Your task to perform on an android device: View the shopping cart on costco.com. Image 0: 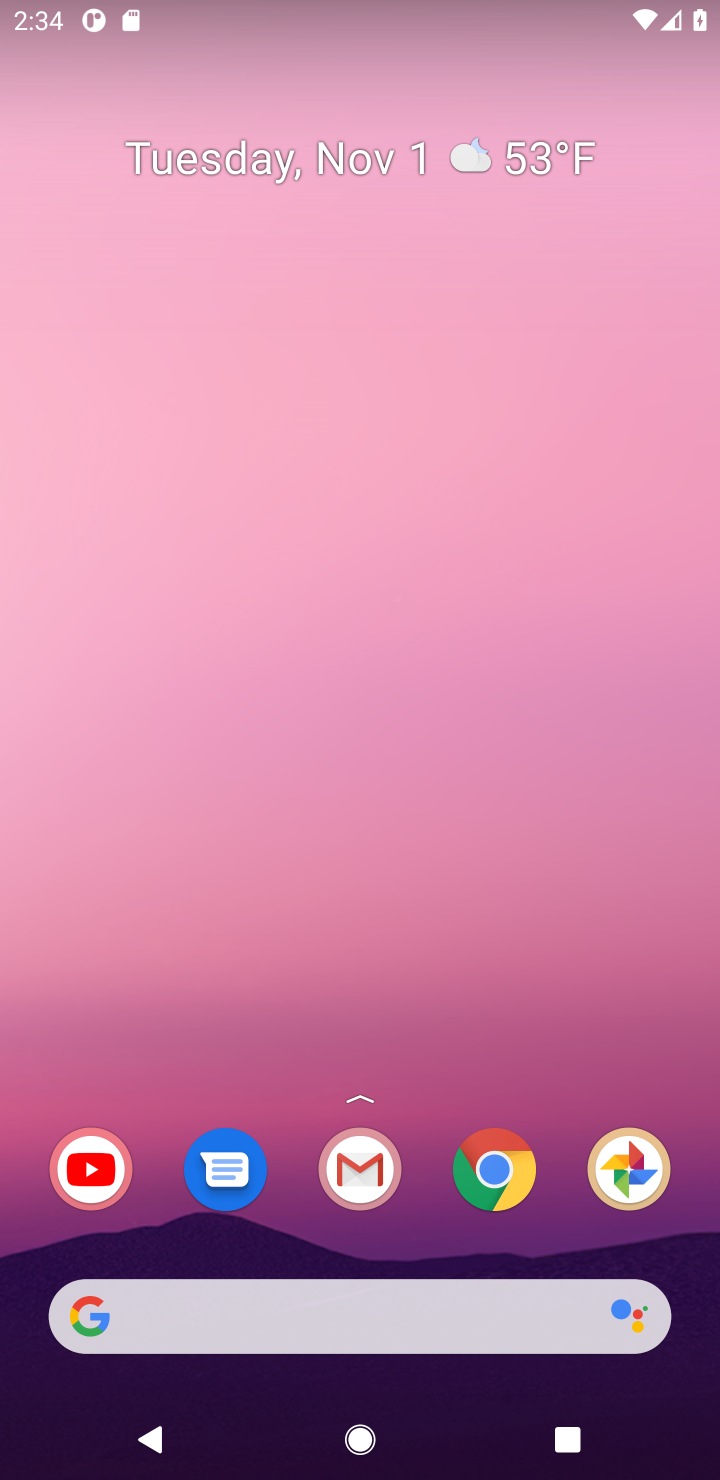
Step 0: drag from (420, 1117) to (405, 236)
Your task to perform on an android device: View the shopping cart on costco.com. Image 1: 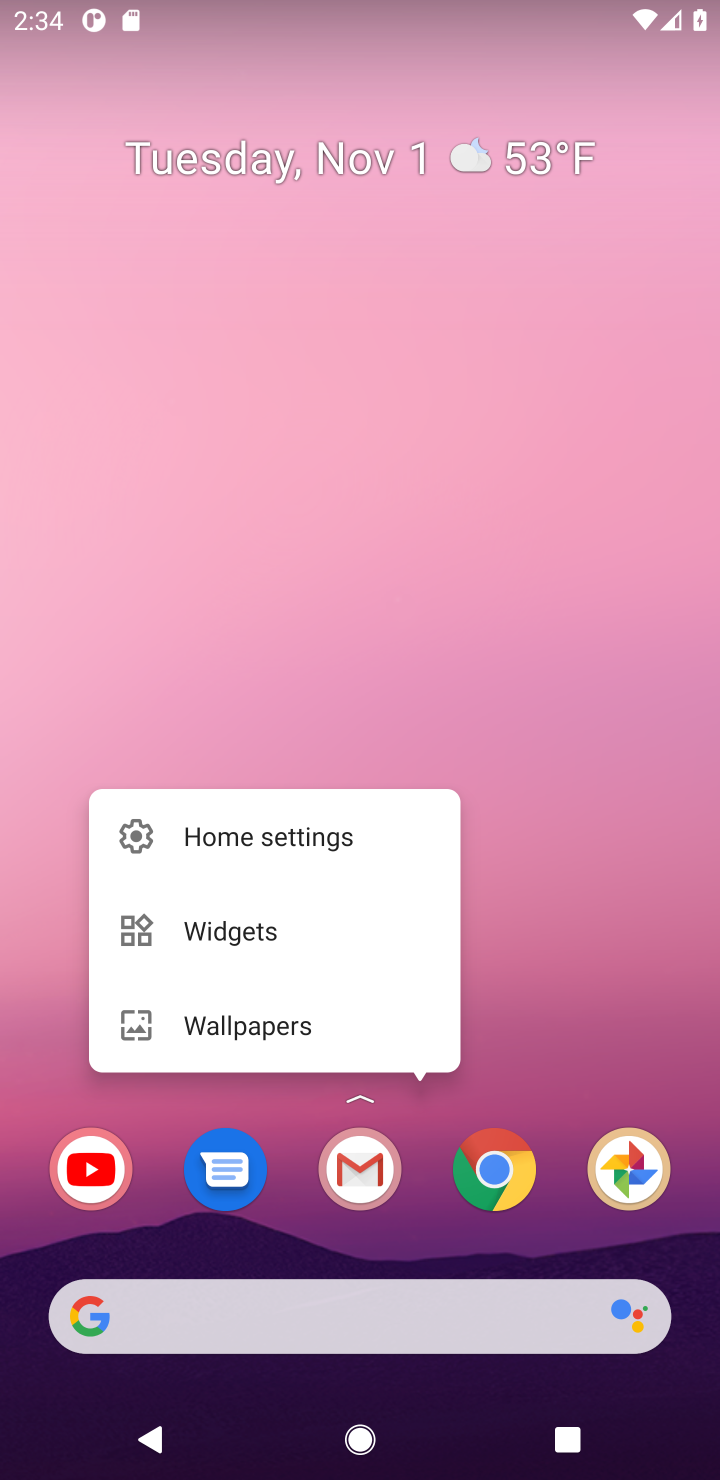
Step 1: click (540, 973)
Your task to perform on an android device: View the shopping cart on costco.com. Image 2: 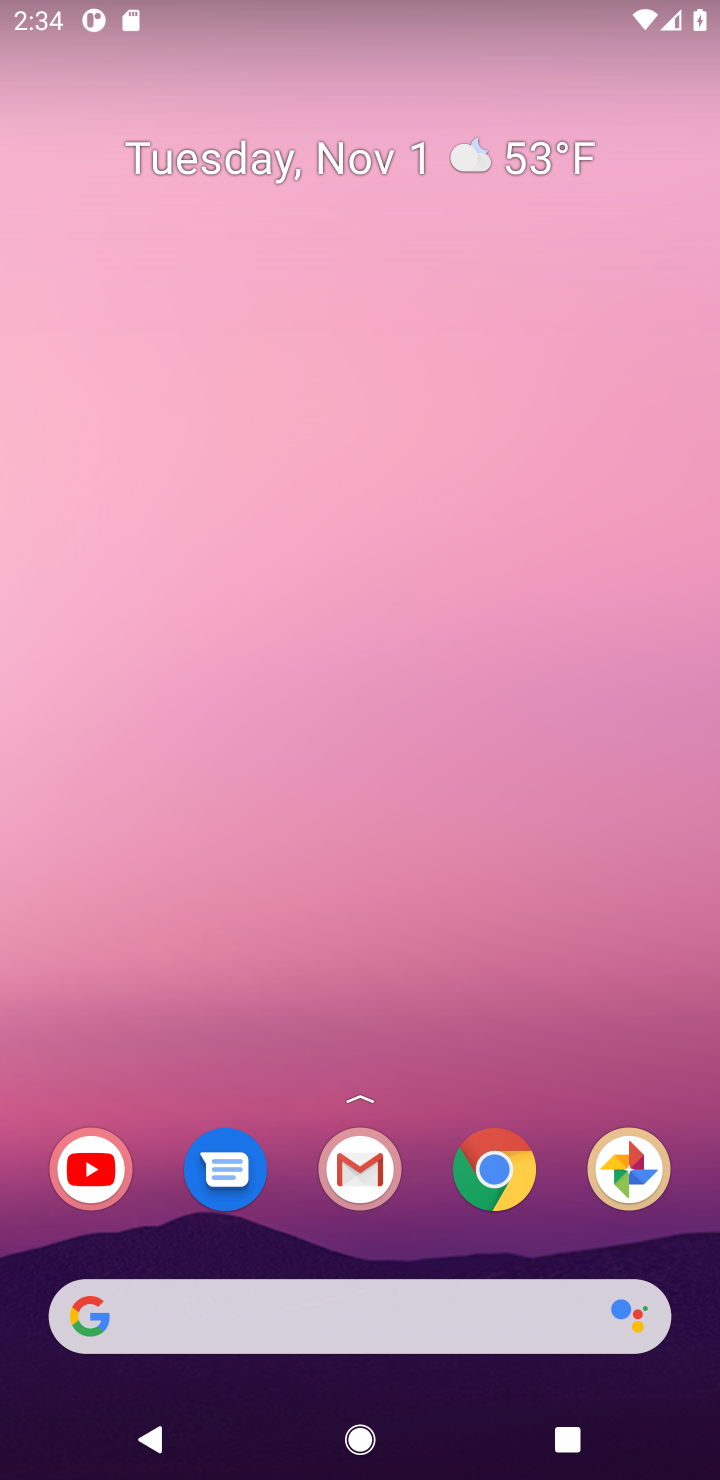
Step 2: drag from (554, 1115) to (470, 81)
Your task to perform on an android device: View the shopping cart on costco.com. Image 3: 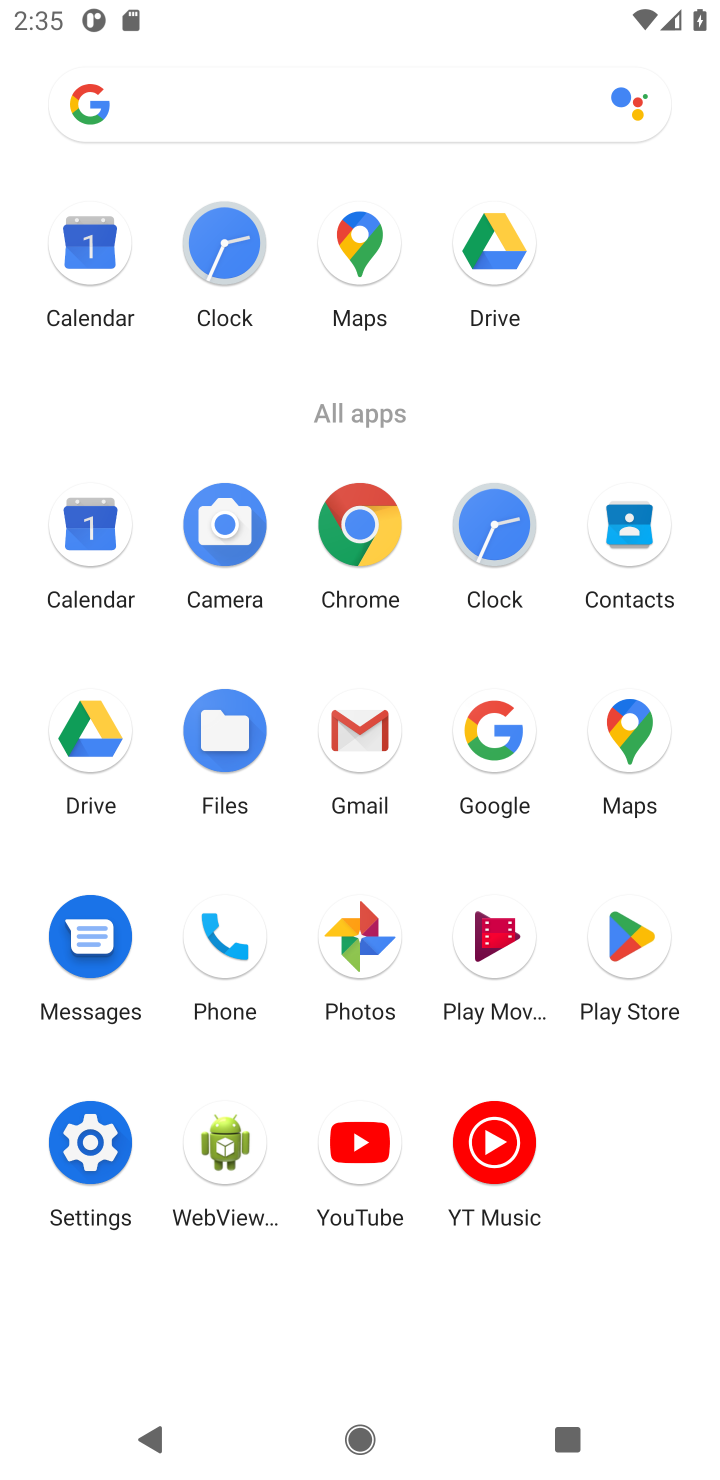
Step 3: click (355, 515)
Your task to perform on an android device: View the shopping cart on costco.com. Image 4: 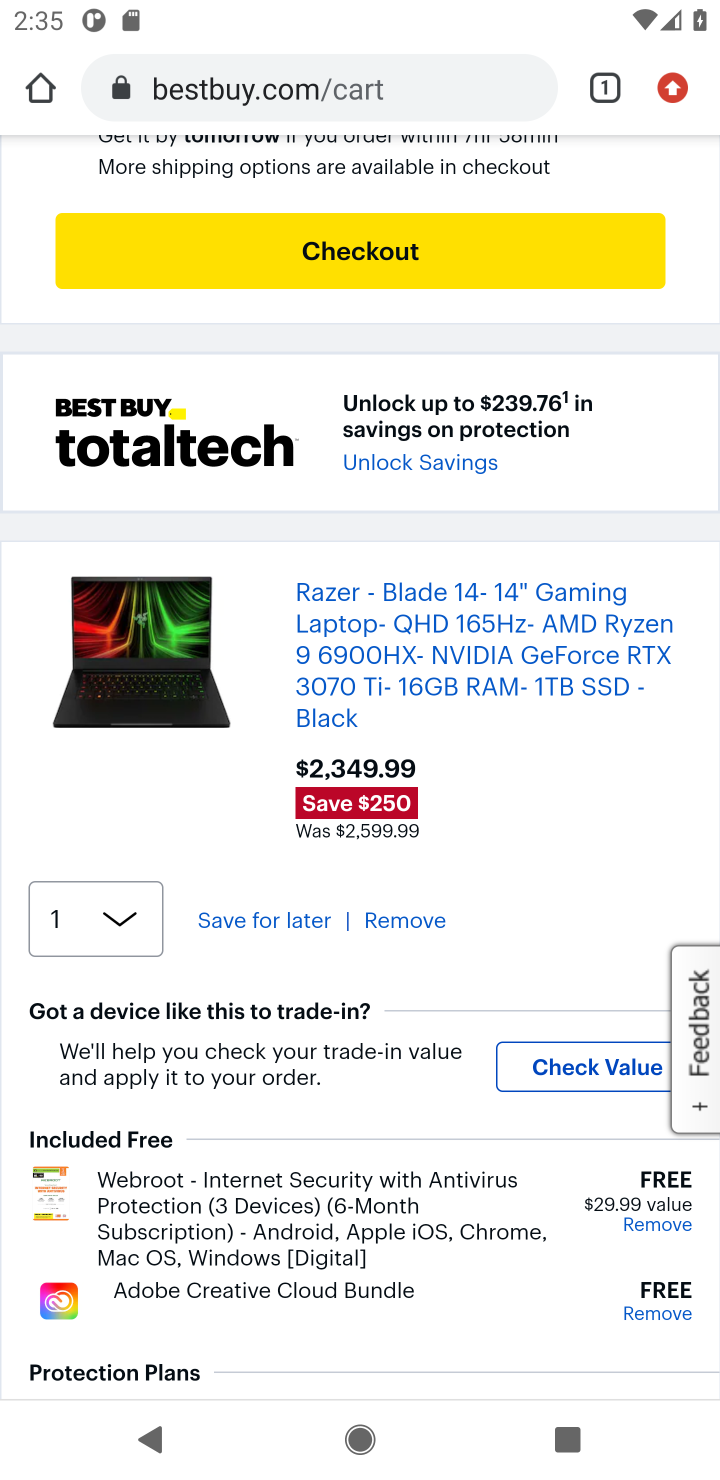
Step 4: click (354, 511)
Your task to perform on an android device: View the shopping cart on costco.com. Image 5: 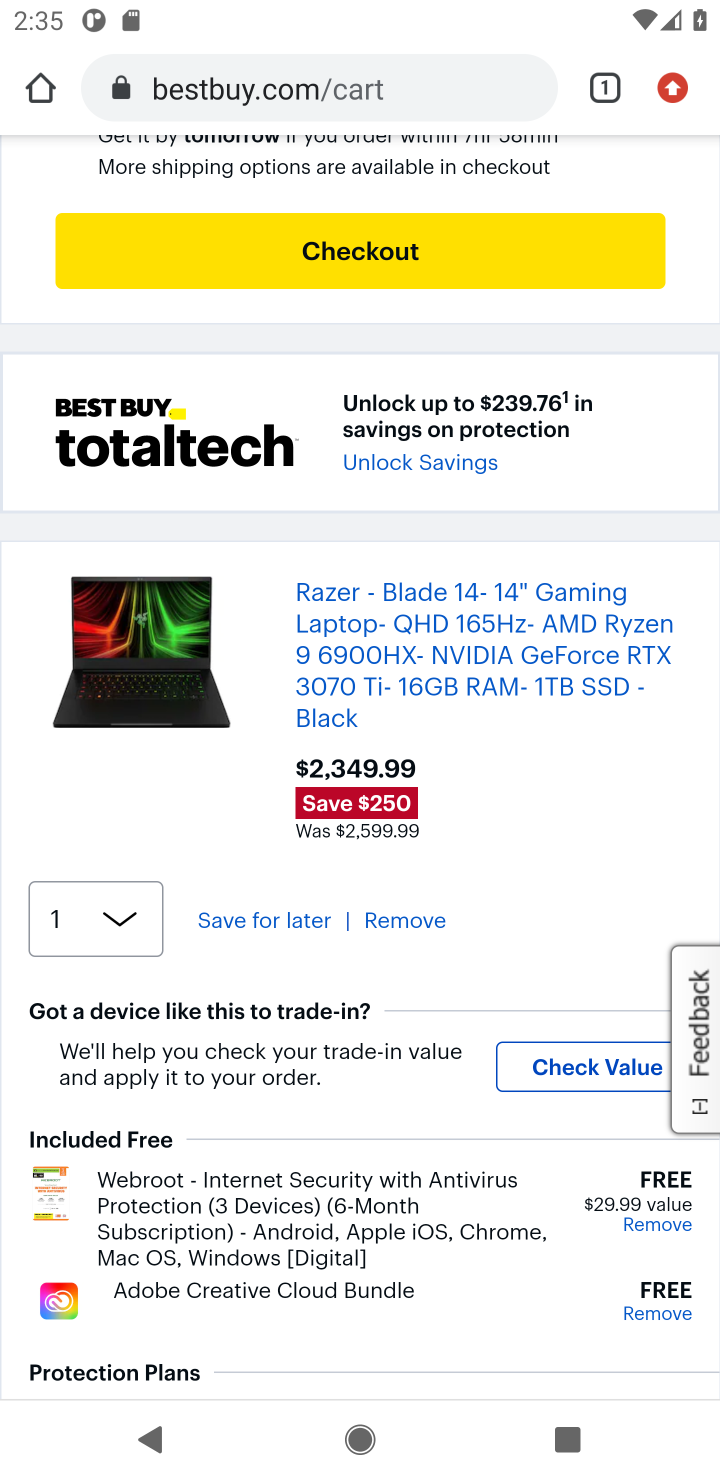
Step 5: click (253, 90)
Your task to perform on an android device: View the shopping cart on costco.com. Image 6: 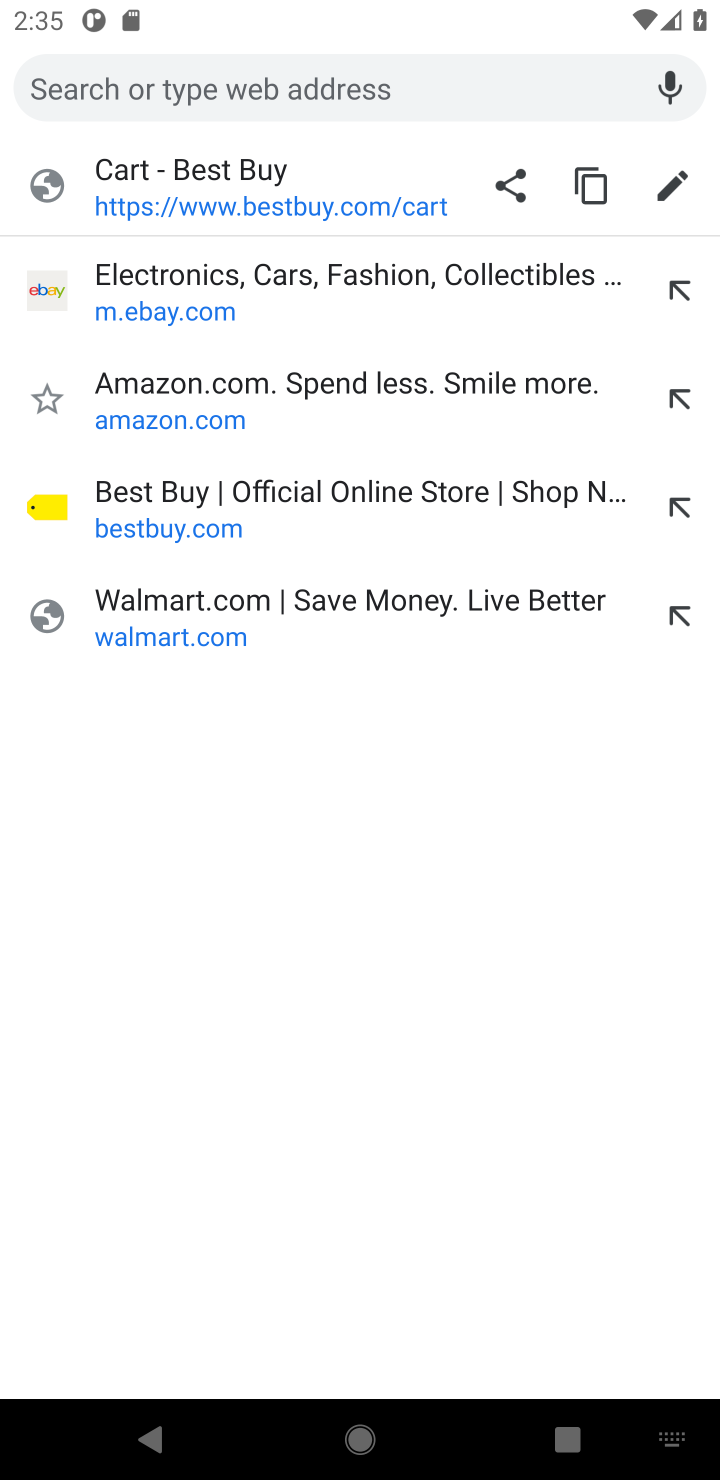
Step 6: type "costco"
Your task to perform on an android device: View the shopping cart on costco.com. Image 7: 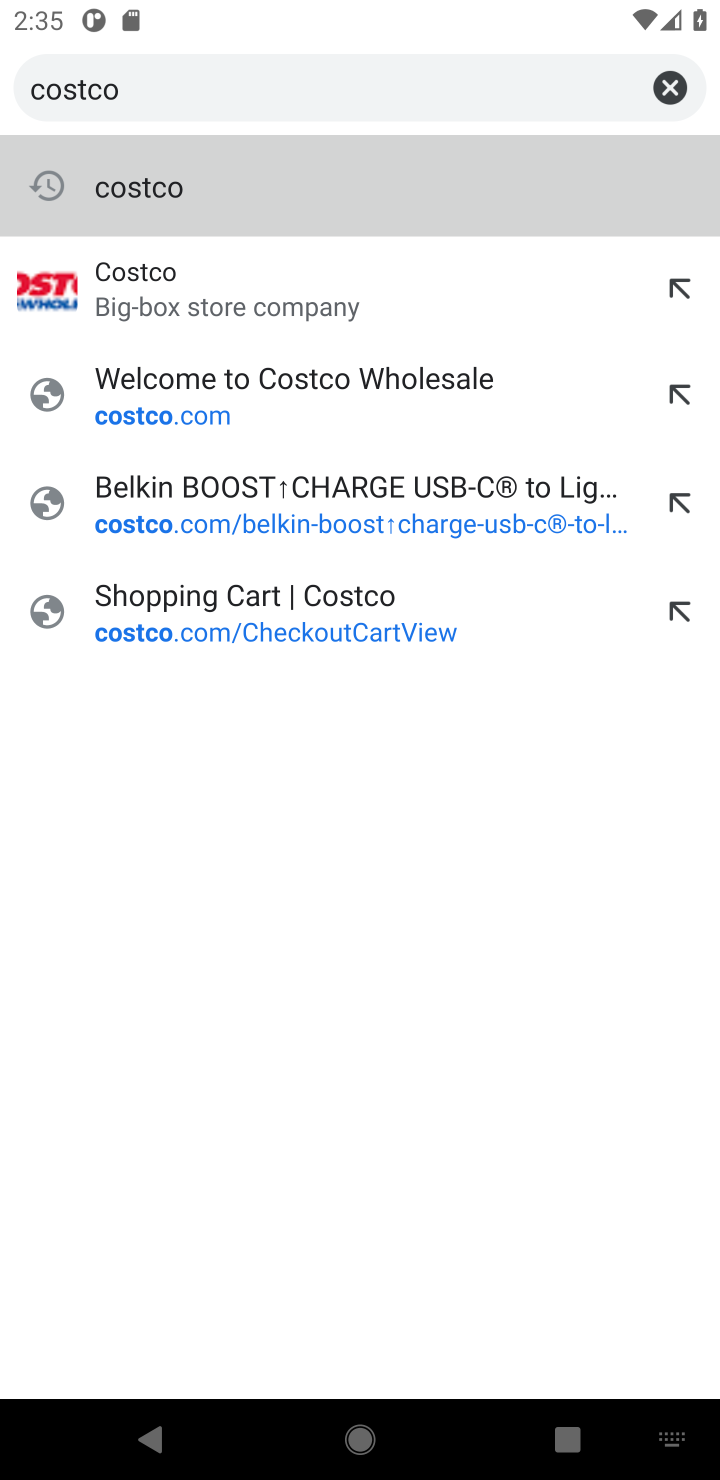
Step 7: type ""
Your task to perform on an android device: View the shopping cart on costco.com. Image 8: 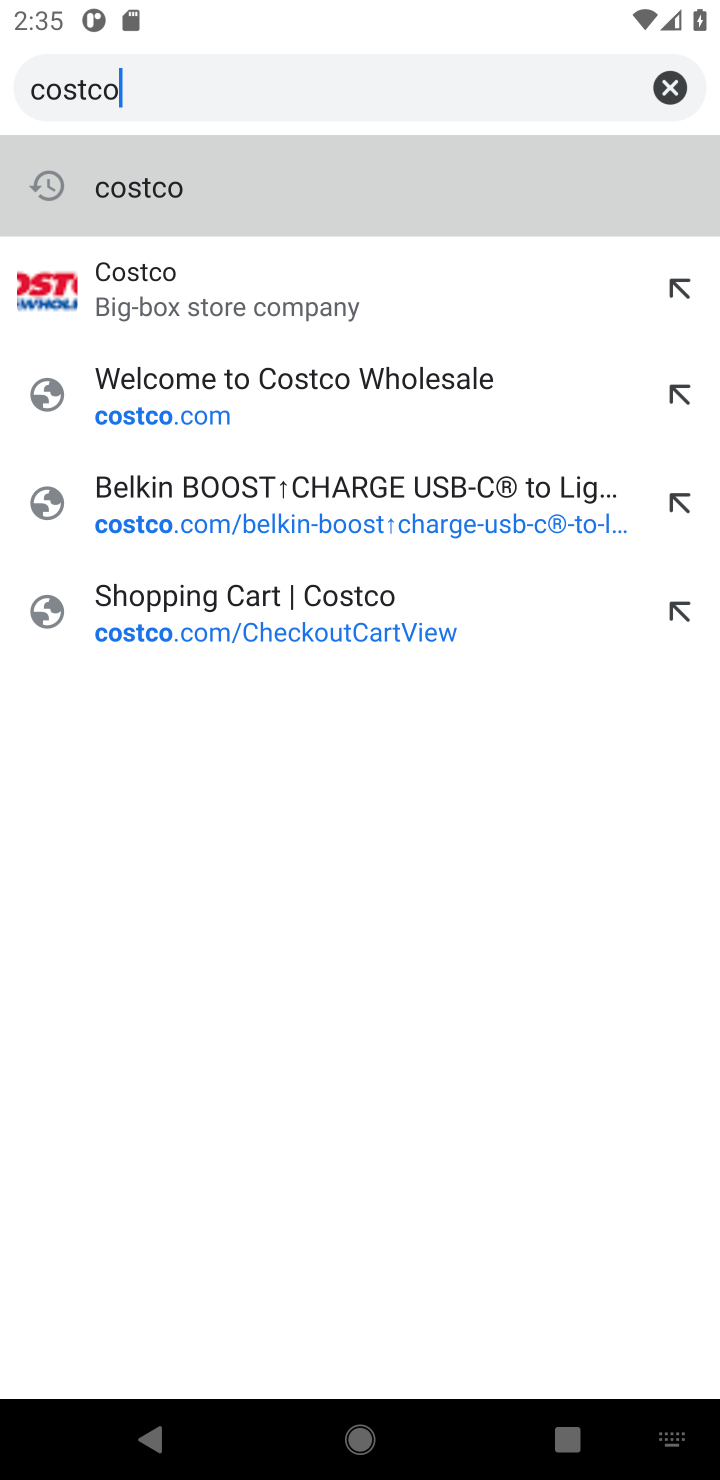
Step 8: click (215, 281)
Your task to perform on an android device: View the shopping cart on costco.com. Image 9: 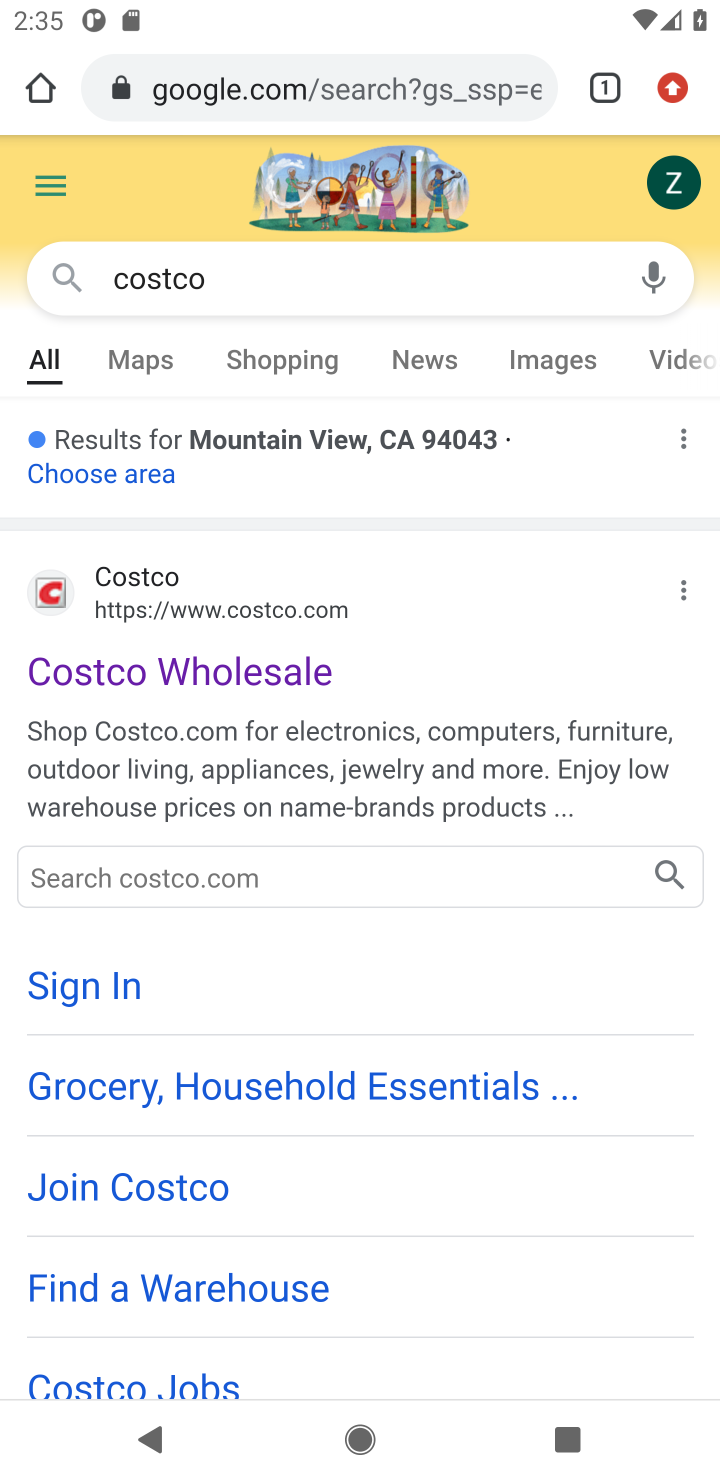
Step 9: click (182, 669)
Your task to perform on an android device: View the shopping cart on costco.com. Image 10: 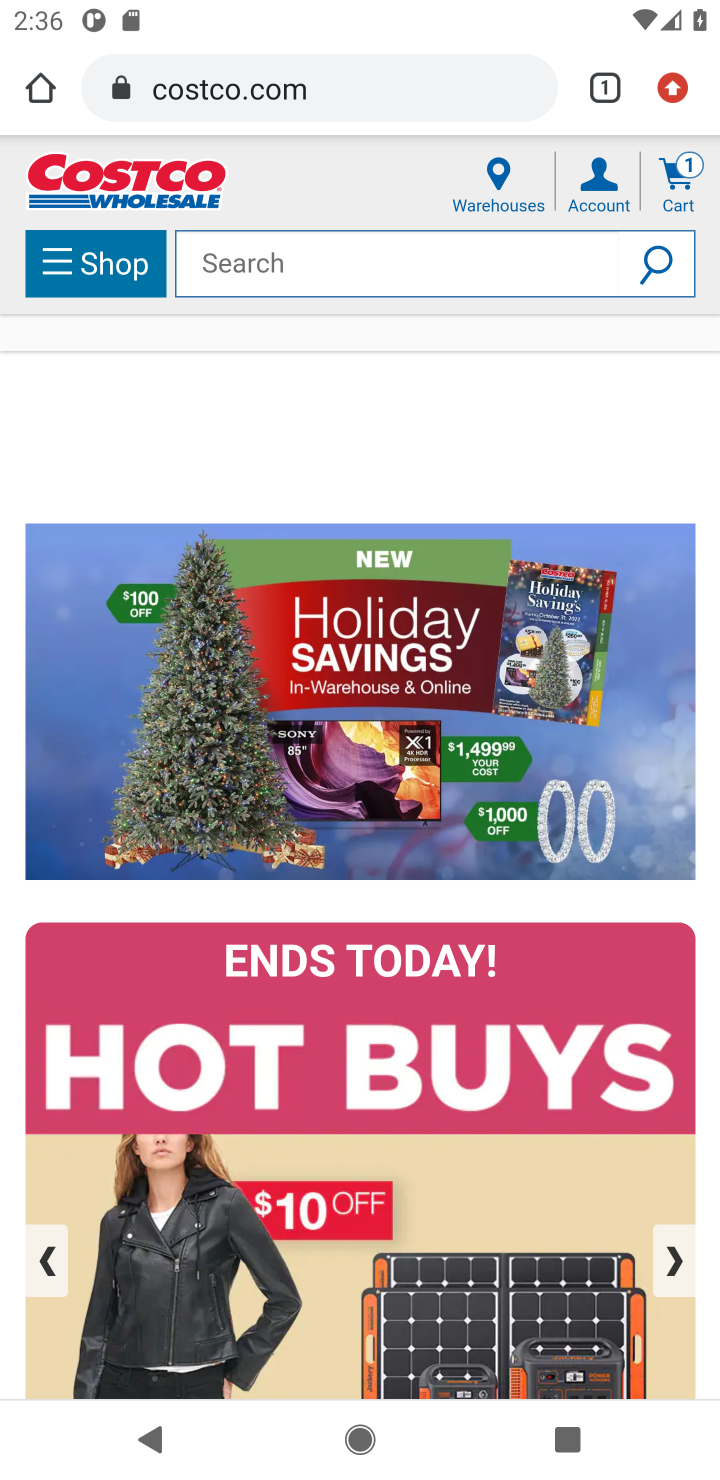
Step 10: click (669, 179)
Your task to perform on an android device: View the shopping cart on costco.com. Image 11: 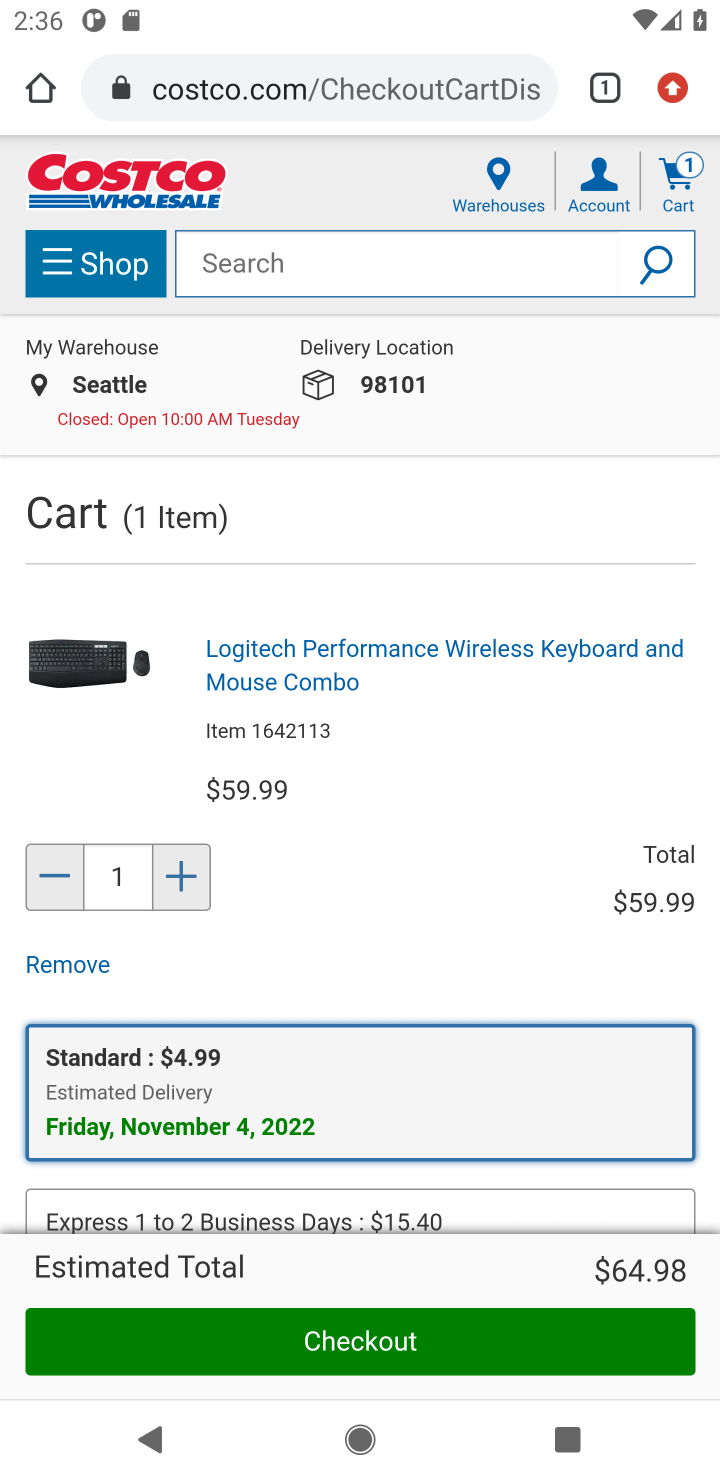
Step 11: task complete